Your task to perform on an android device: turn on translation in the chrome app Image 0: 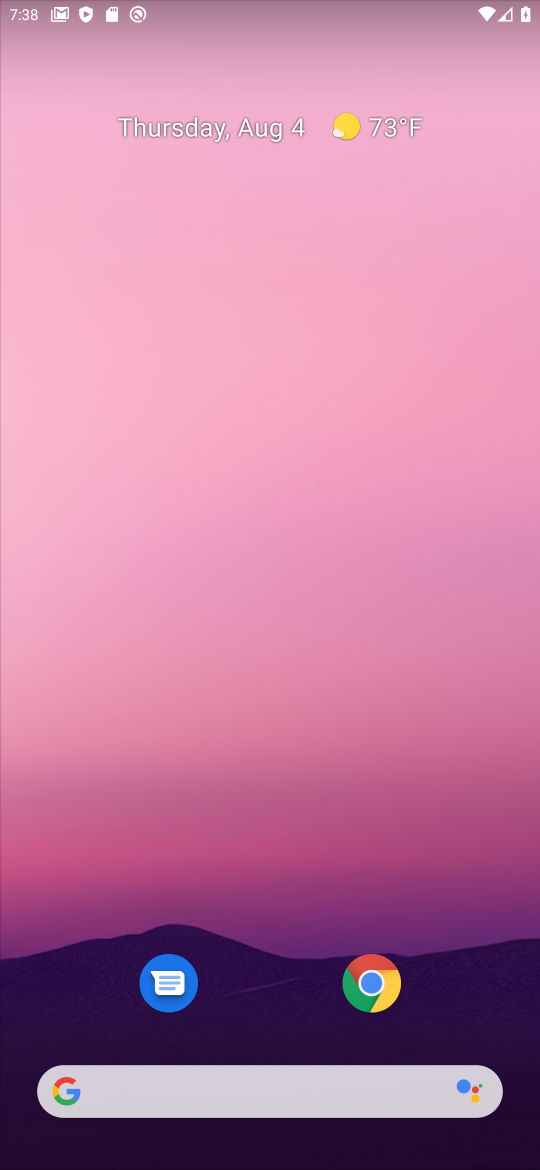
Step 0: click (378, 991)
Your task to perform on an android device: turn on translation in the chrome app Image 1: 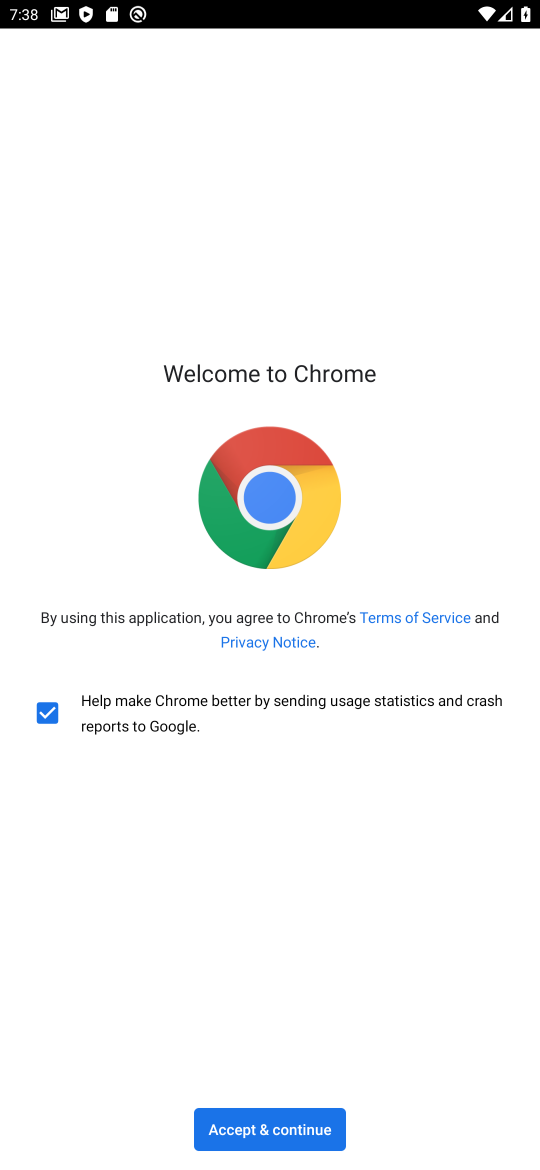
Step 1: click (303, 1135)
Your task to perform on an android device: turn on translation in the chrome app Image 2: 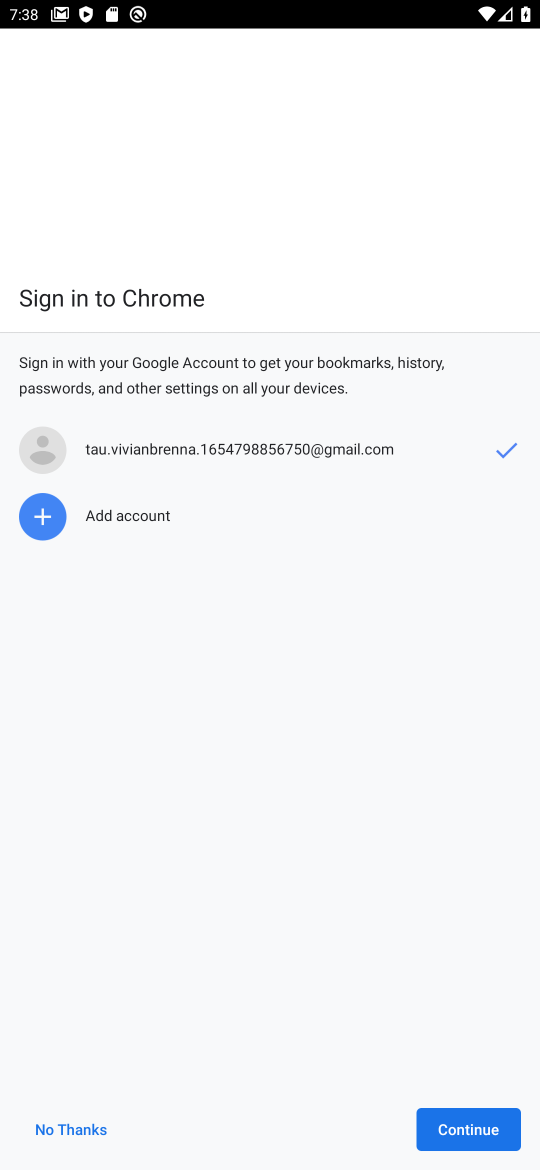
Step 2: click (483, 1134)
Your task to perform on an android device: turn on translation in the chrome app Image 3: 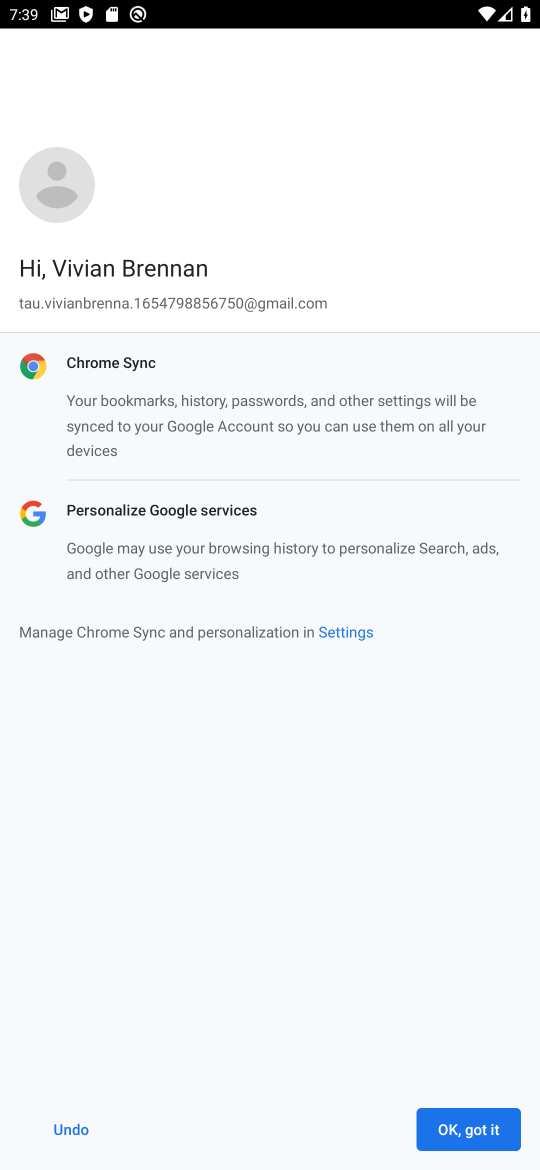
Step 3: click (485, 1137)
Your task to perform on an android device: turn on translation in the chrome app Image 4: 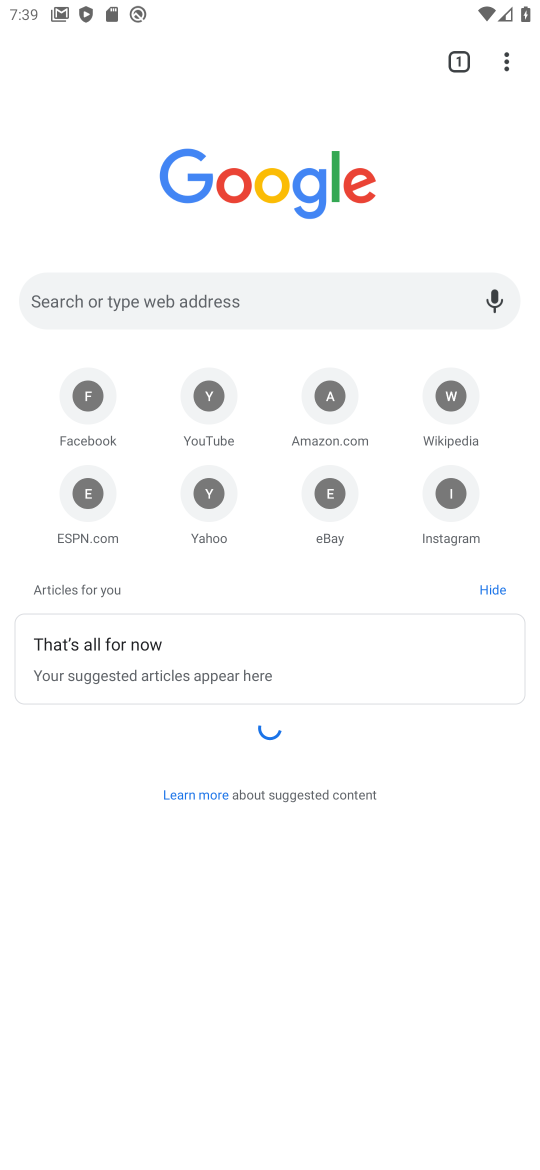
Step 4: drag from (509, 68) to (416, 512)
Your task to perform on an android device: turn on translation in the chrome app Image 5: 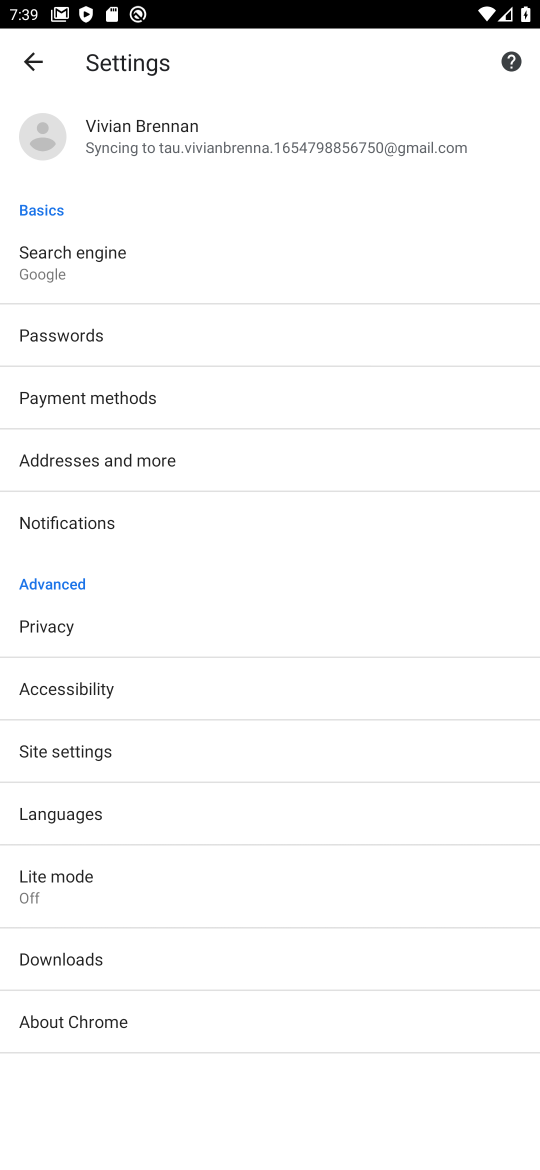
Step 5: click (111, 826)
Your task to perform on an android device: turn on translation in the chrome app Image 6: 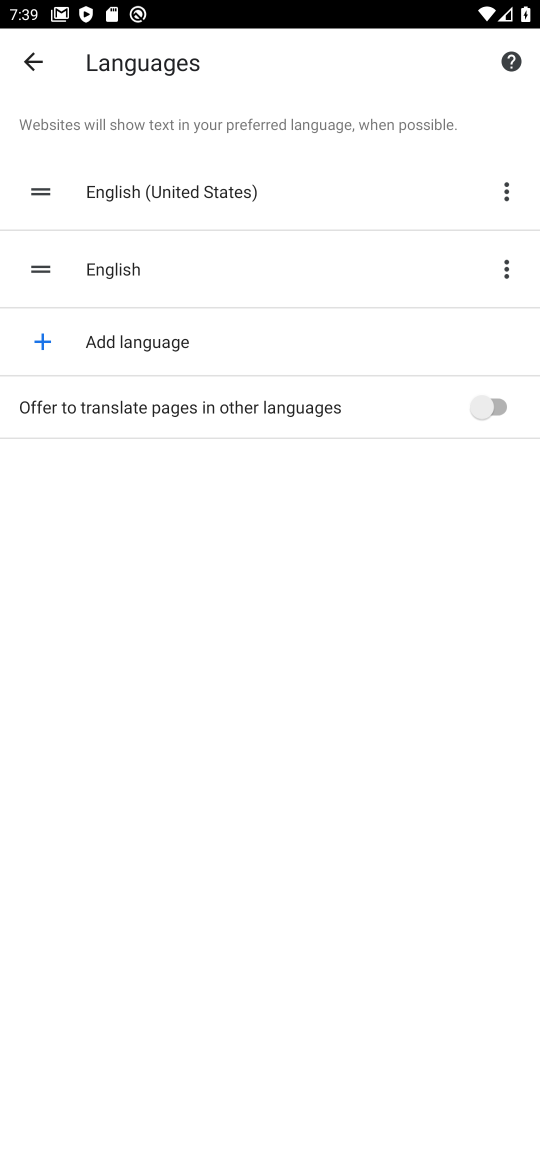
Step 6: click (488, 408)
Your task to perform on an android device: turn on translation in the chrome app Image 7: 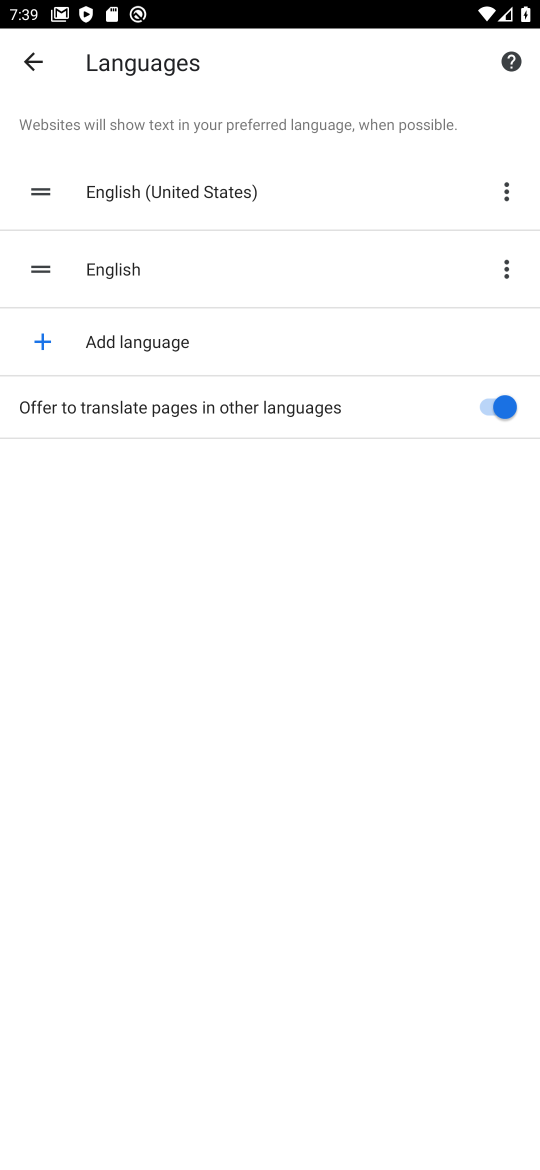
Step 7: task complete